Your task to perform on an android device: empty trash in google photos Image 0: 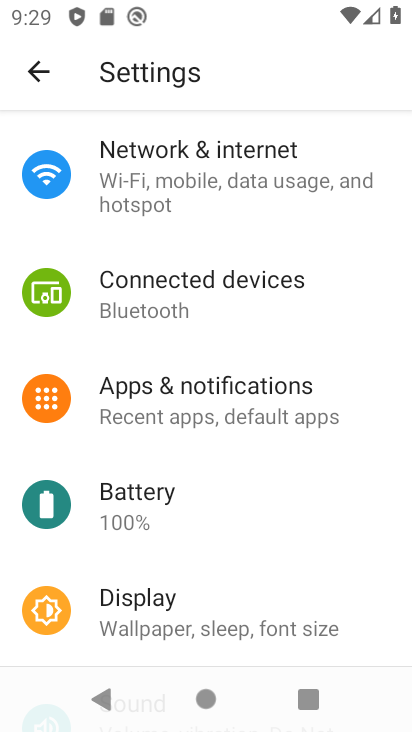
Step 0: press home button
Your task to perform on an android device: empty trash in google photos Image 1: 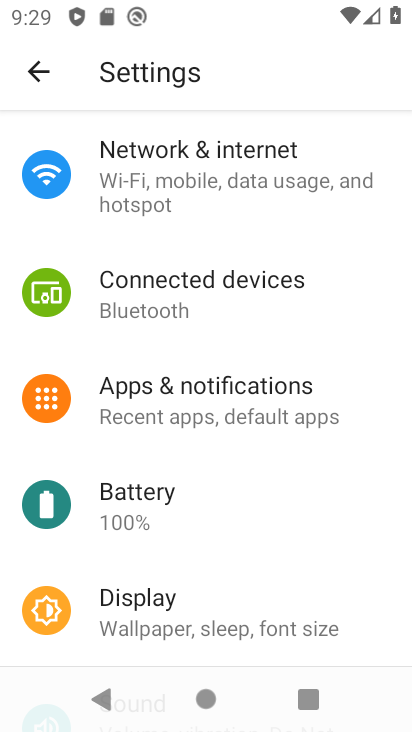
Step 1: press home button
Your task to perform on an android device: empty trash in google photos Image 2: 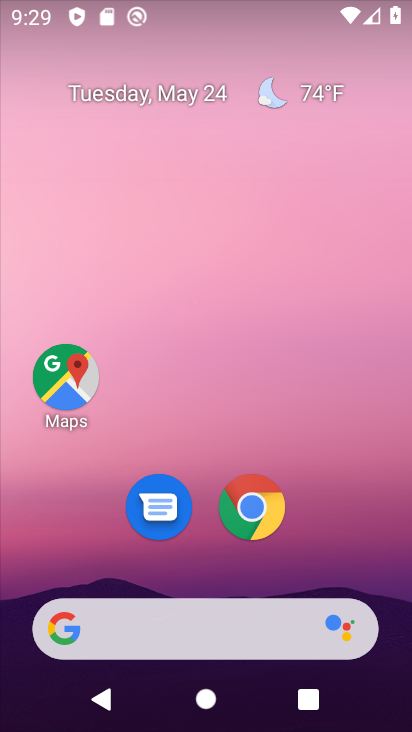
Step 2: drag from (221, 719) to (185, 261)
Your task to perform on an android device: empty trash in google photos Image 3: 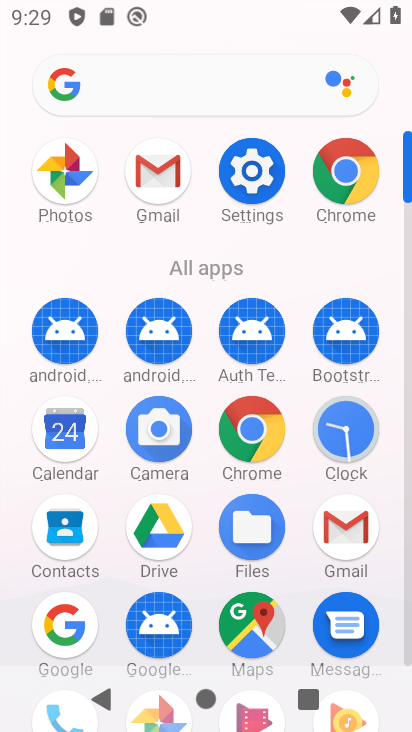
Step 3: click (64, 178)
Your task to perform on an android device: empty trash in google photos Image 4: 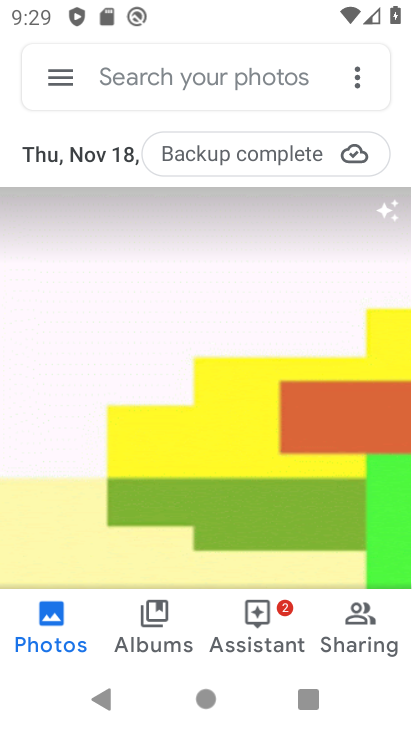
Step 4: click (56, 79)
Your task to perform on an android device: empty trash in google photos Image 5: 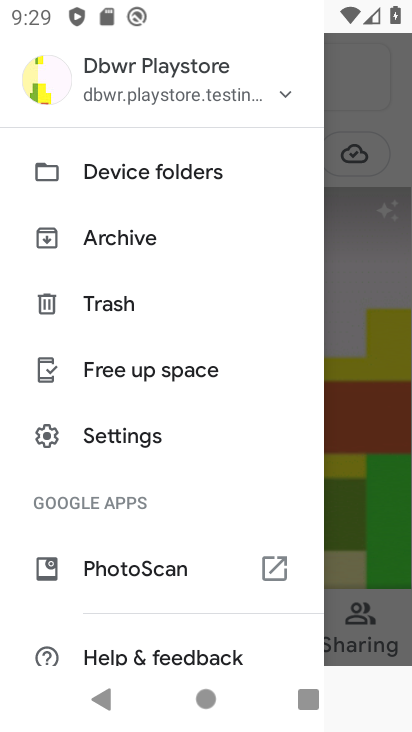
Step 5: click (117, 303)
Your task to perform on an android device: empty trash in google photos Image 6: 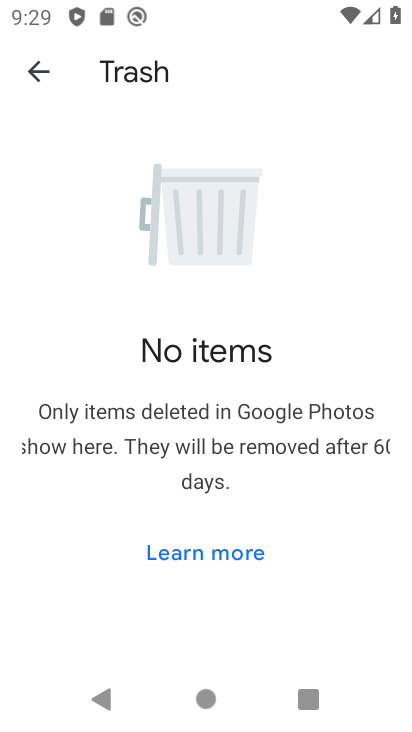
Step 6: task complete